Your task to perform on an android device: move a message to another label in the gmail app Image 0: 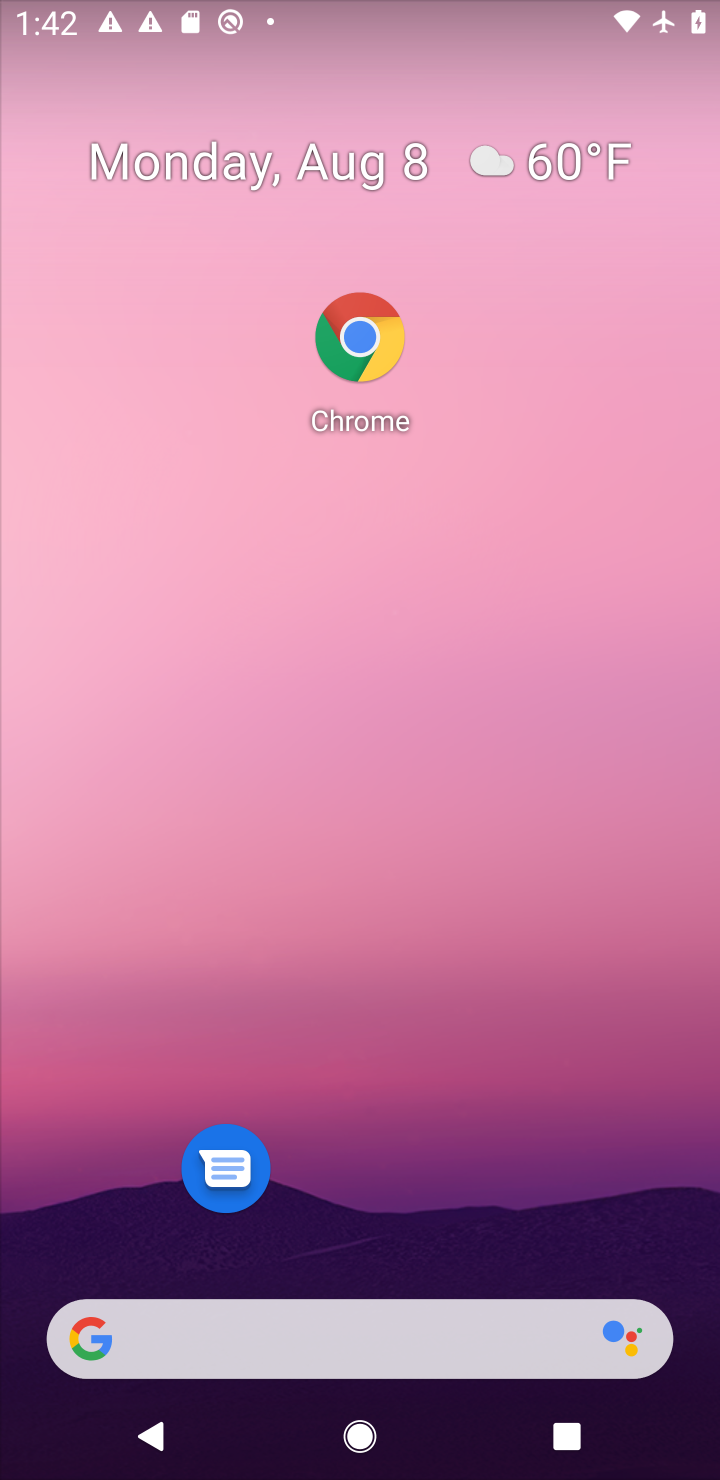
Step 0: drag from (524, 1242) to (555, 338)
Your task to perform on an android device: move a message to another label in the gmail app Image 1: 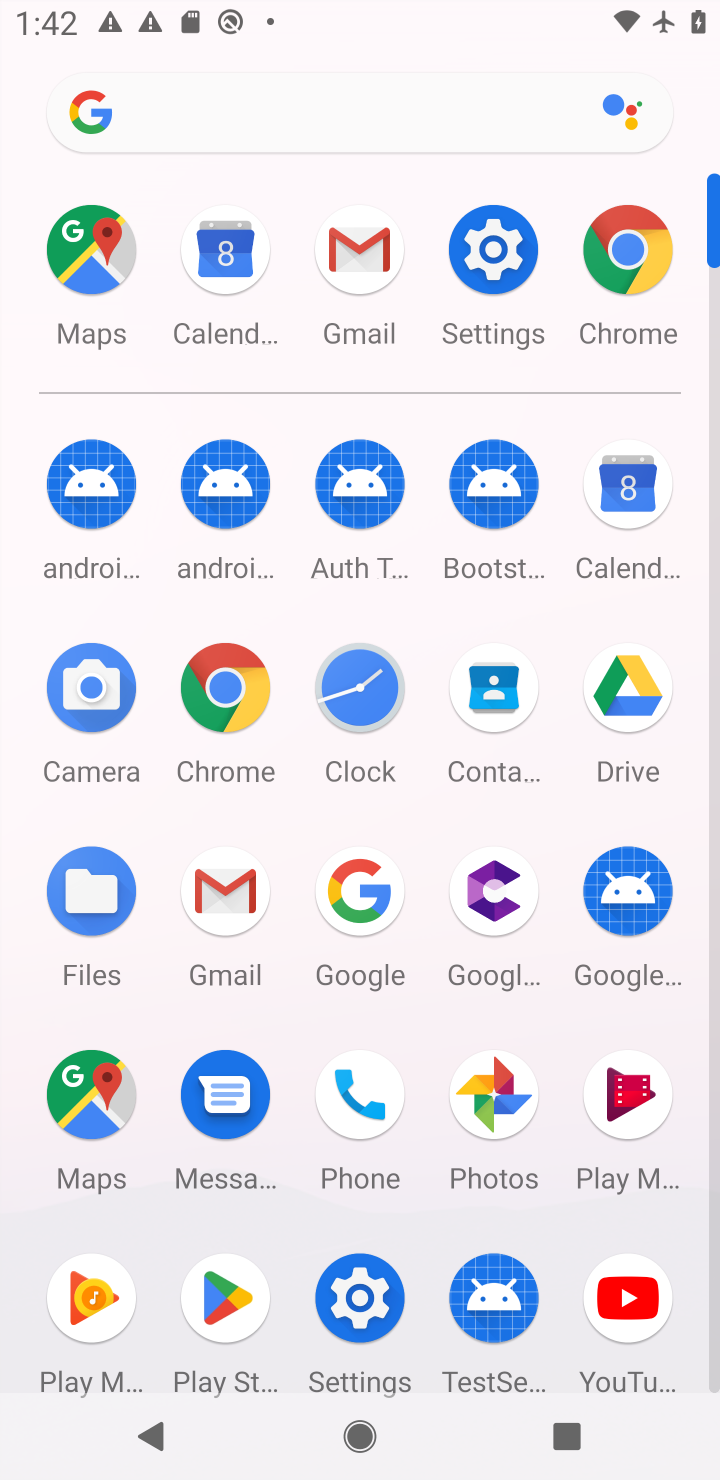
Step 1: click (371, 315)
Your task to perform on an android device: move a message to another label in the gmail app Image 2: 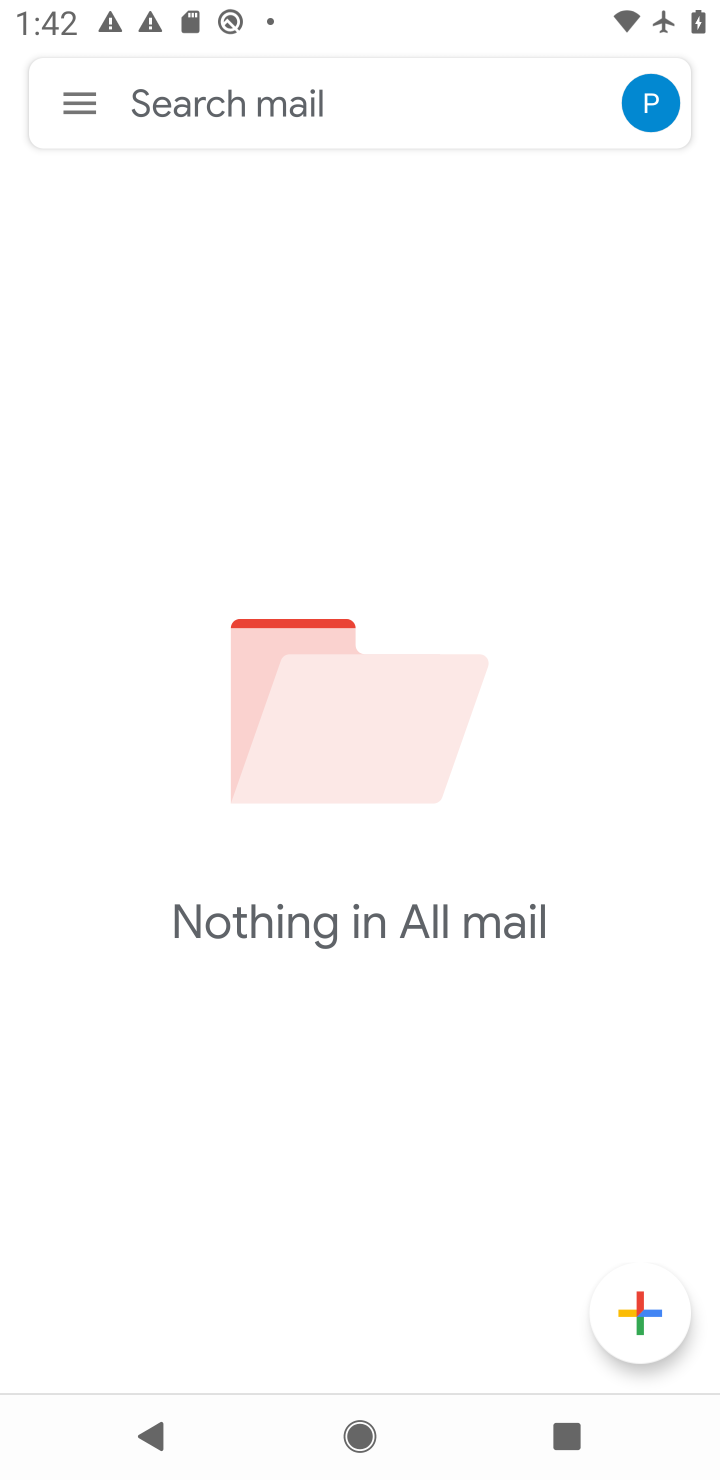
Step 2: click (91, 117)
Your task to perform on an android device: move a message to another label in the gmail app Image 3: 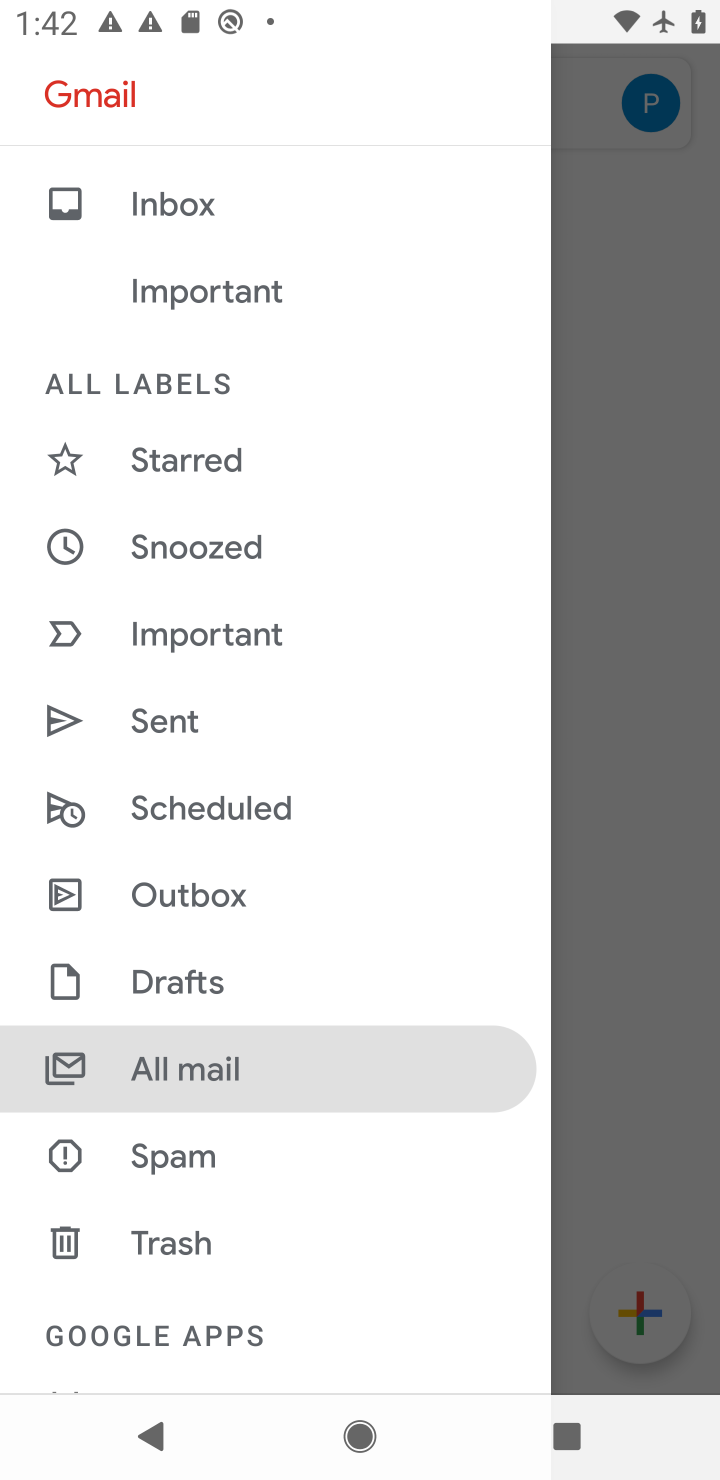
Step 3: task complete